Your task to perform on an android device: Open Youtube and go to "Your channel" Image 0: 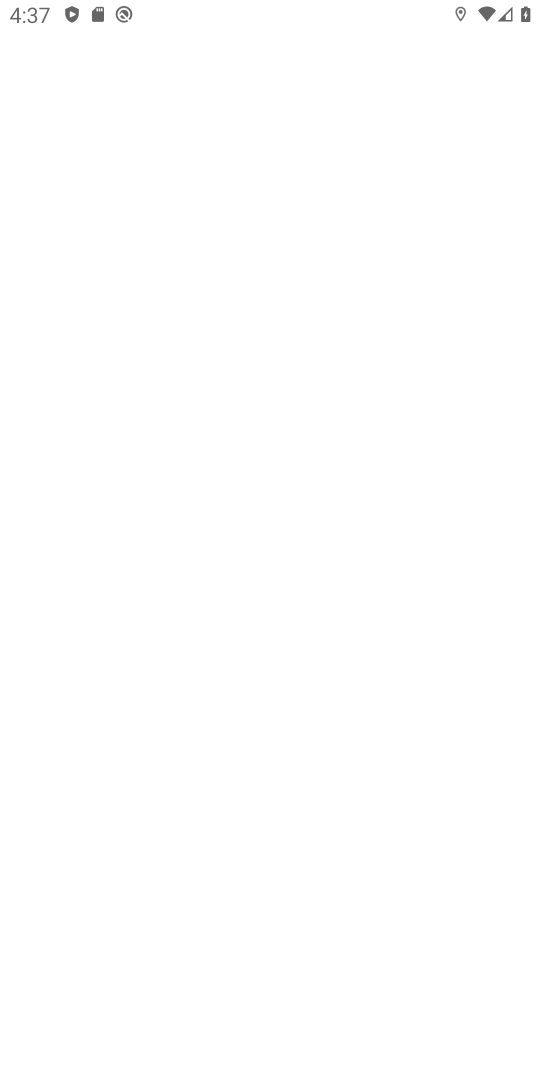
Step 0: click (39, 105)
Your task to perform on an android device: Open Youtube and go to "Your channel" Image 1: 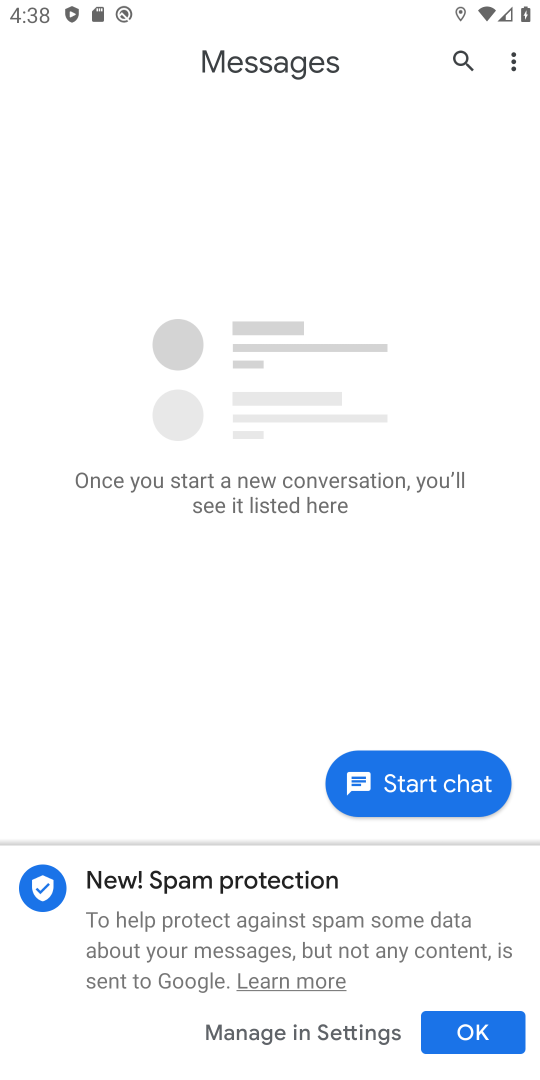
Step 1: press back button
Your task to perform on an android device: Open Youtube and go to "Your channel" Image 2: 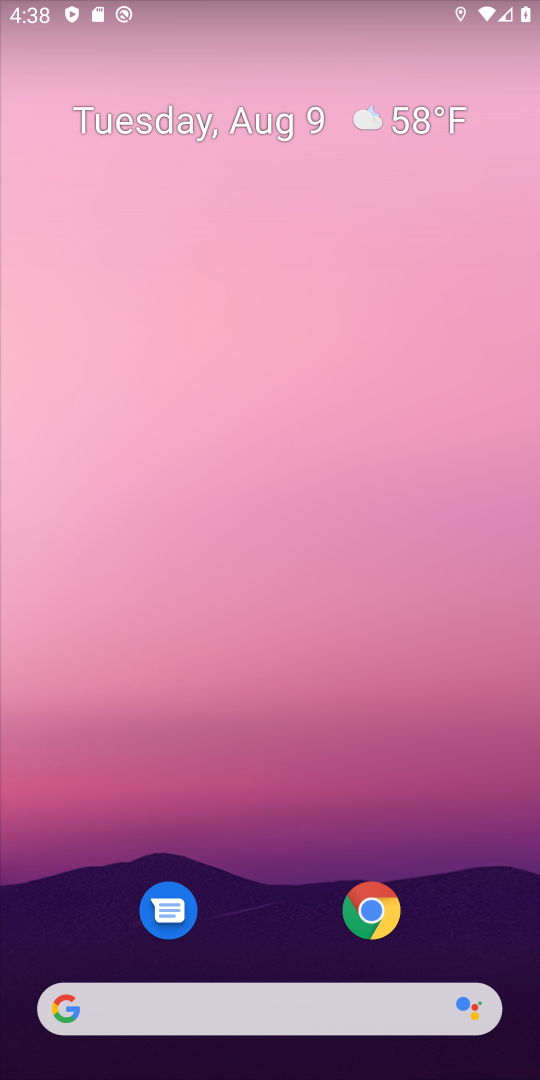
Step 2: drag from (279, 750) to (131, 218)
Your task to perform on an android device: Open Youtube and go to "Your channel" Image 3: 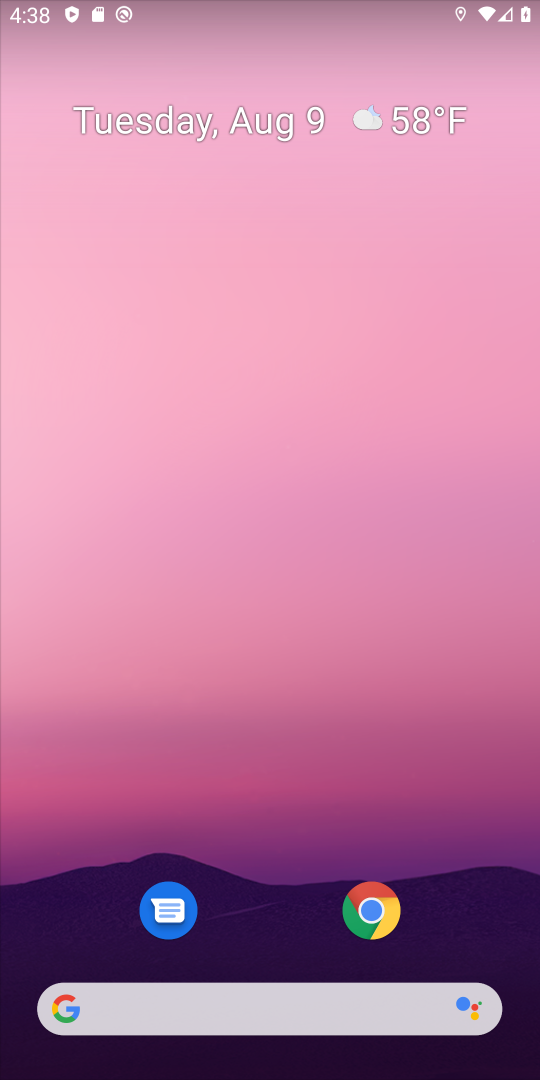
Step 3: drag from (220, 706) to (115, 261)
Your task to perform on an android device: Open Youtube and go to "Your channel" Image 4: 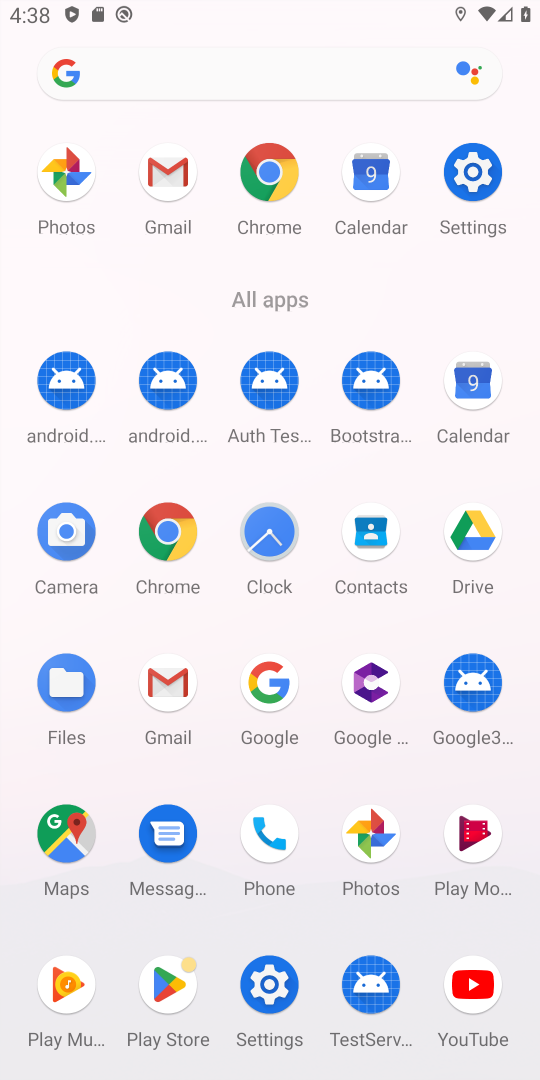
Step 4: click (471, 972)
Your task to perform on an android device: Open Youtube and go to "Your channel" Image 5: 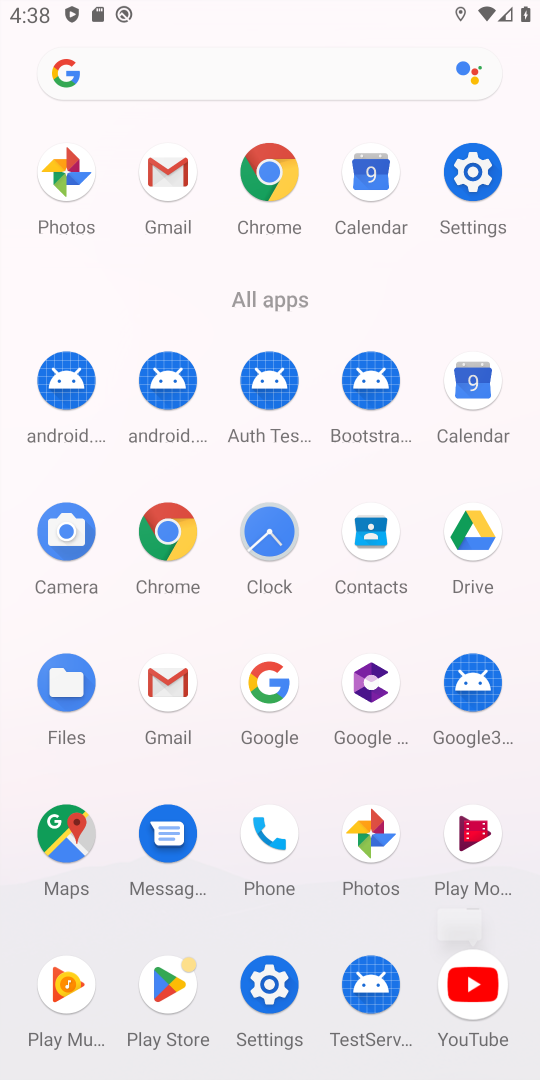
Step 5: click (463, 982)
Your task to perform on an android device: Open Youtube and go to "Your channel" Image 6: 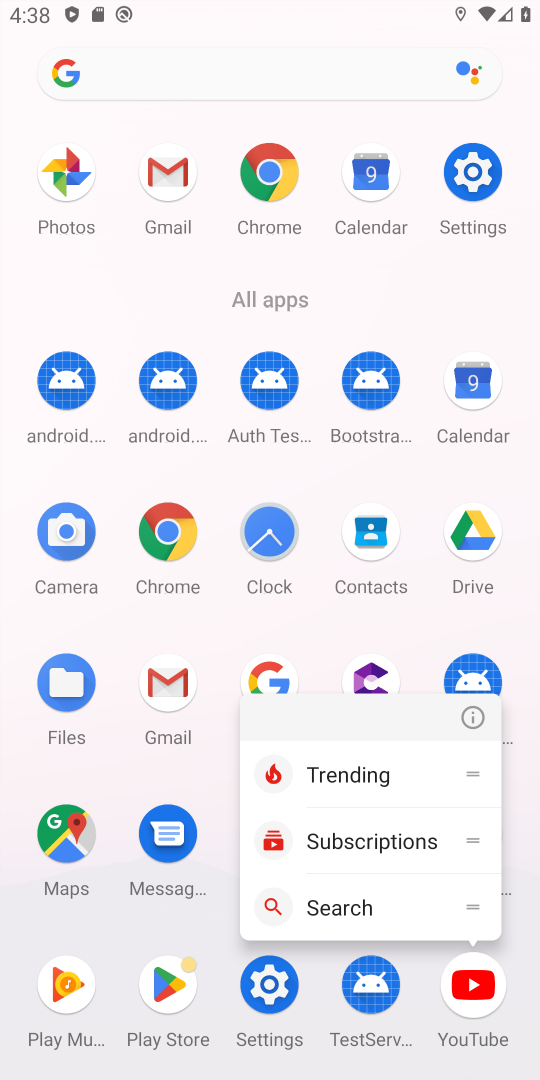
Step 6: click (463, 982)
Your task to perform on an android device: Open Youtube and go to "Your channel" Image 7: 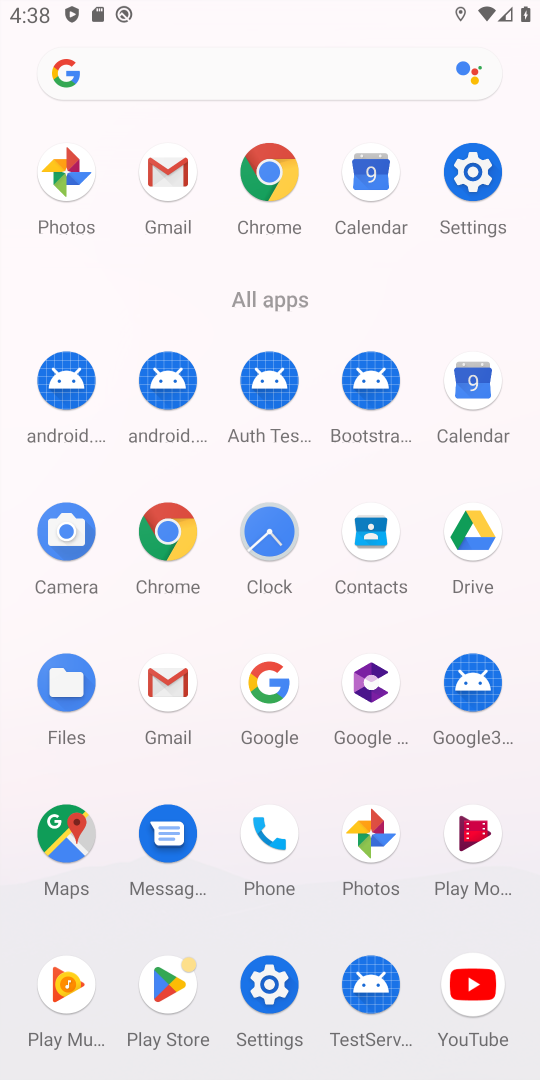
Step 7: click (466, 986)
Your task to perform on an android device: Open Youtube and go to "Your channel" Image 8: 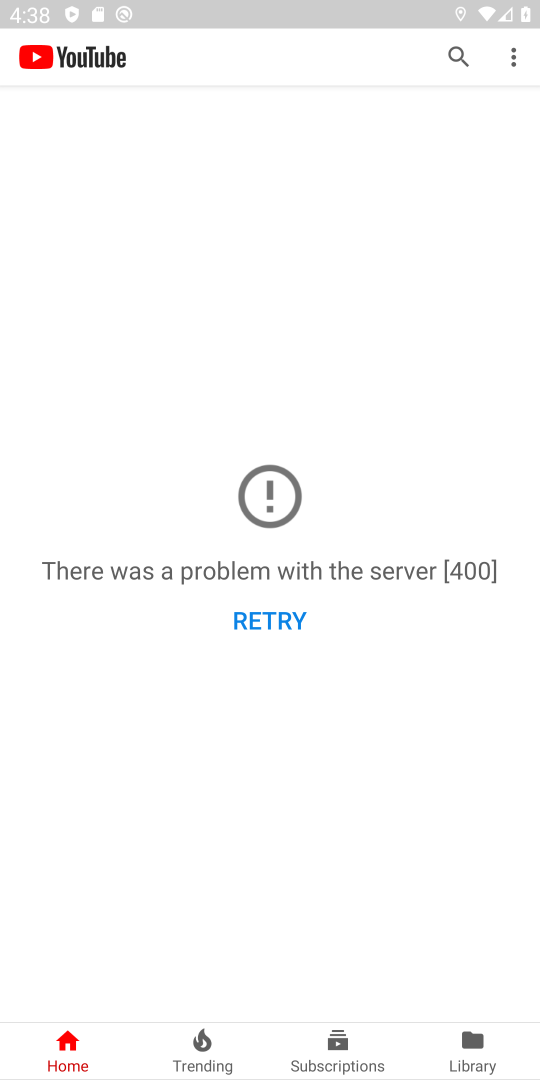
Step 8: task complete